Your task to perform on an android device: Set the phone to "Do not disturb". Image 0: 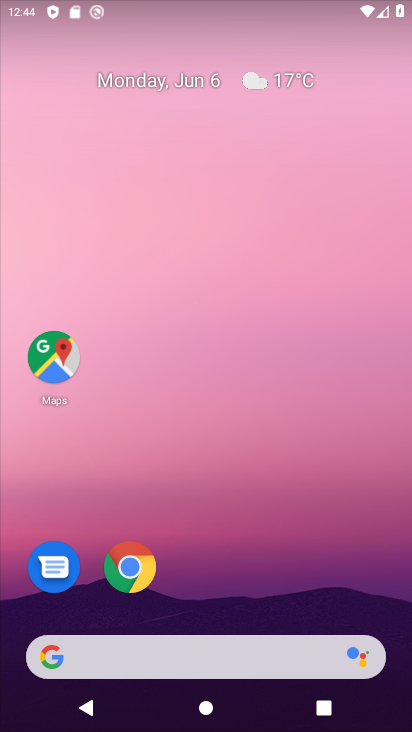
Step 0: drag from (242, 695) to (211, 49)
Your task to perform on an android device: Set the phone to "Do not disturb". Image 1: 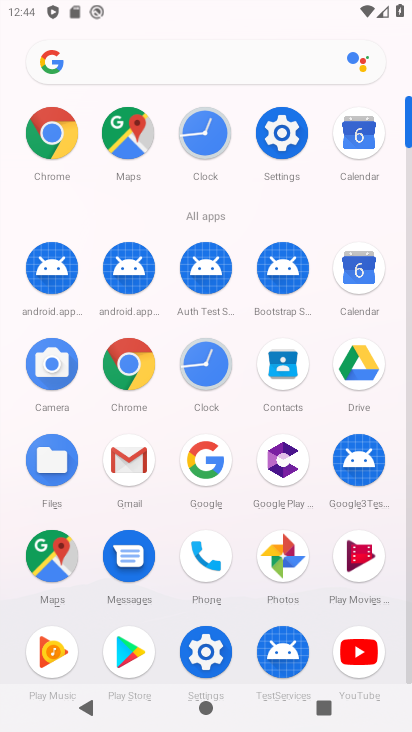
Step 1: click (272, 137)
Your task to perform on an android device: Set the phone to "Do not disturb". Image 2: 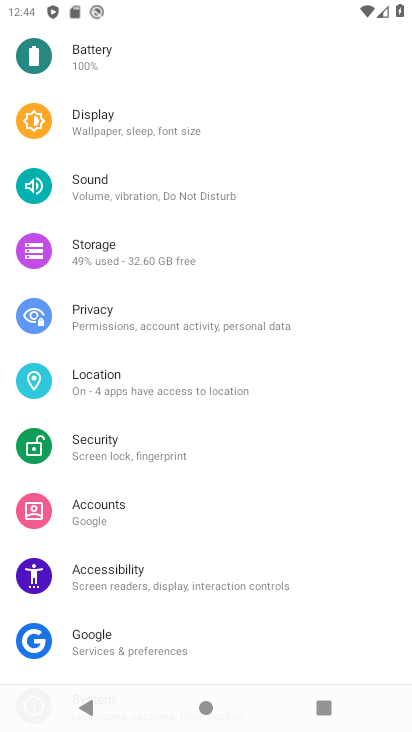
Step 2: click (172, 198)
Your task to perform on an android device: Set the phone to "Do not disturb". Image 3: 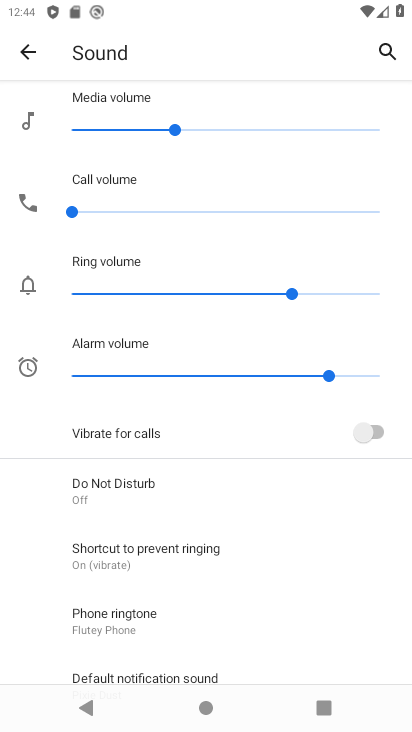
Step 3: click (98, 486)
Your task to perform on an android device: Set the phone to "Do not disturb". Image 4: 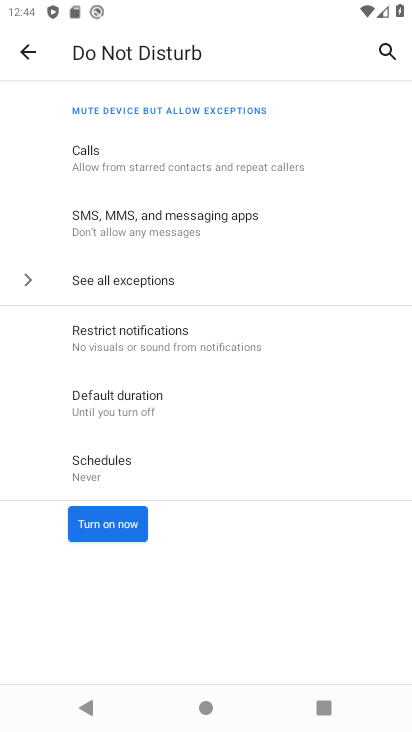
Step 4: click (108, 525)
Your task to perform on an android device: Set the phone to "Do not disturb". Image 5: 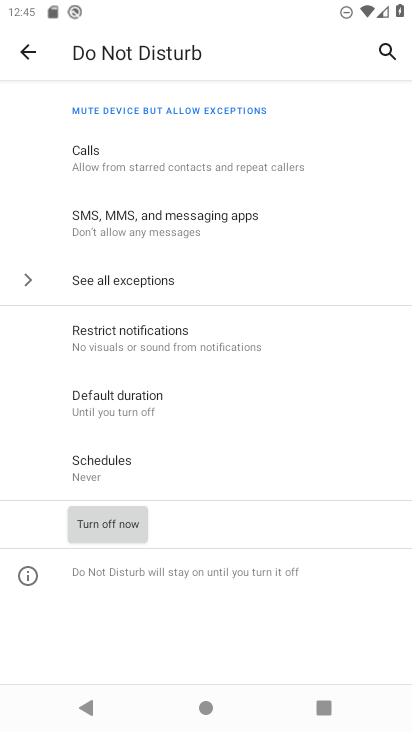
Step 5: task complete